Your task to perform on an android device: Open Youtube and go to the subscriptions tab Image 0: 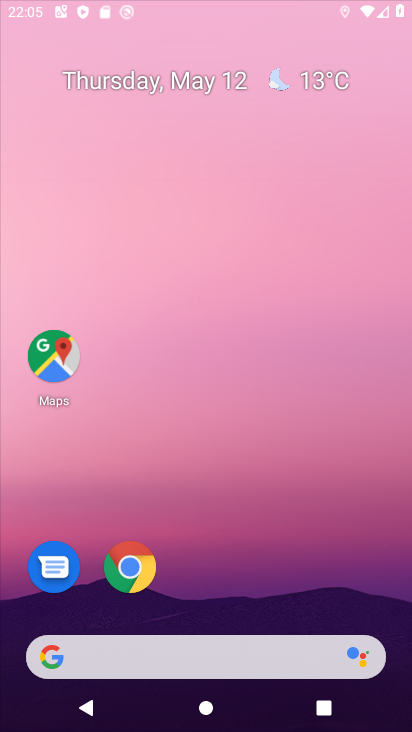
Step 0: drag from (193, 609) to (187, 96)
Your task to perform on an android device: Open Youtube and go to the subscriptions tab Image 1: 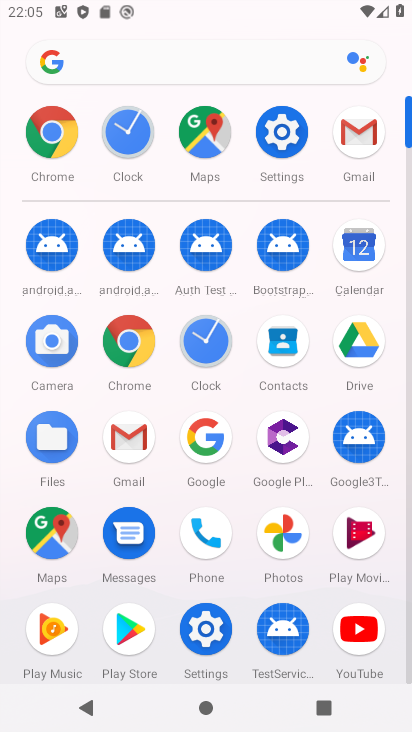
Step 1: click (364, 626)
Your task to perform on an android device: Open Youtube and go to the subscriptions tab Image 2: 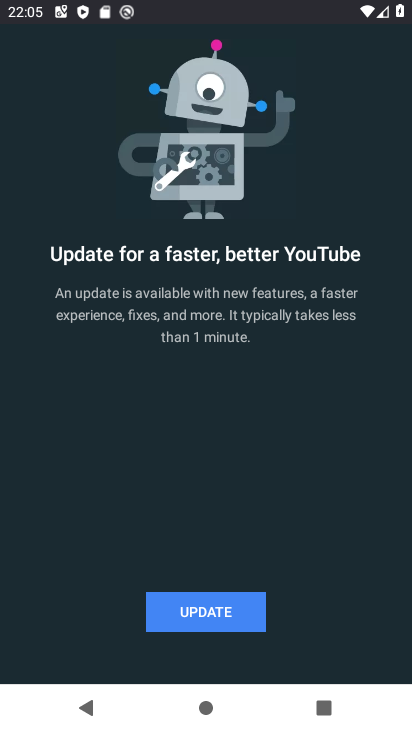
Step 2: click (202, 602)
Your task to perform on an android device: Open Youtube and go to the subscriptions tab Image 3: 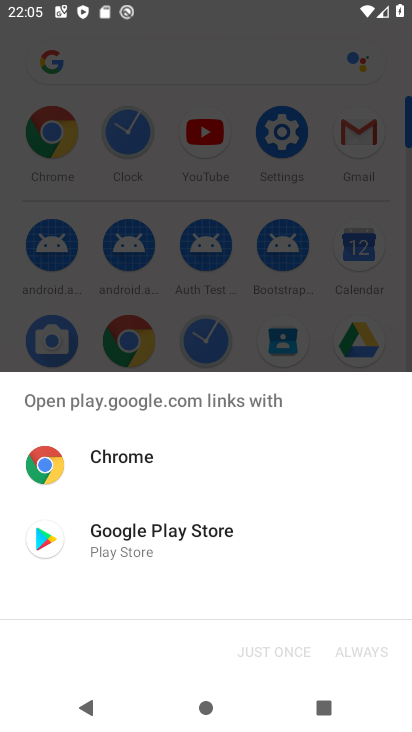
Step 3: click (103, 537)
Your task to perform on an android device: Open Youtube and go to the subscriptions tab Image 4: 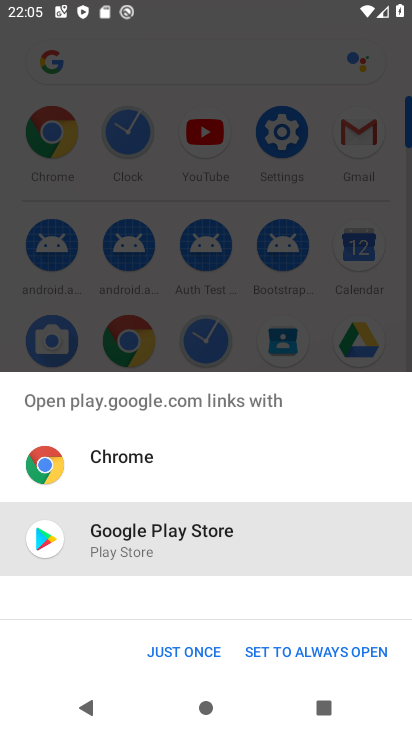
Step 4: click (179, 653)
Your task to perform on an android device: Open Youtube and go to the subscriptions tab Image 5: 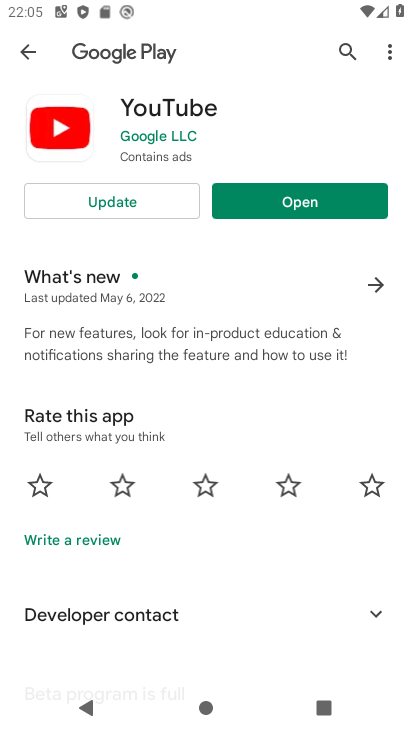
Step 5: click (125, 210)
Your task to perform on an android device: Open Youtube and go to the subscriptions tab Image 6: 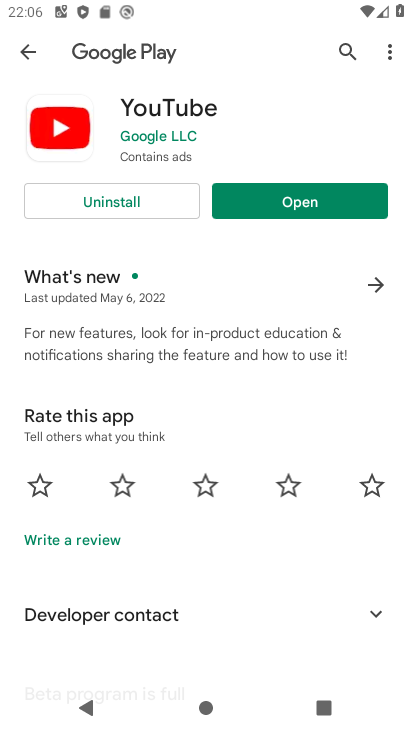
Step 6: click (290, 210)
Your task to perform on an android device: Open Youtube and go to the subscriptions tab Image 7: 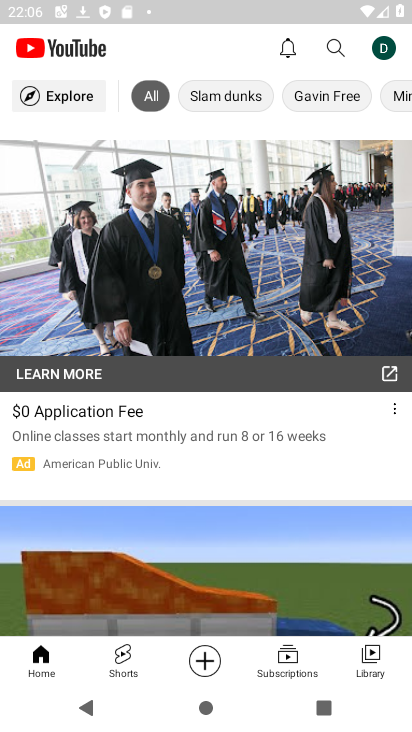
Step 7: click (284, 656)
Your task to perform on an android device: Open Youtube and go to the subscriptions tab Image 8: 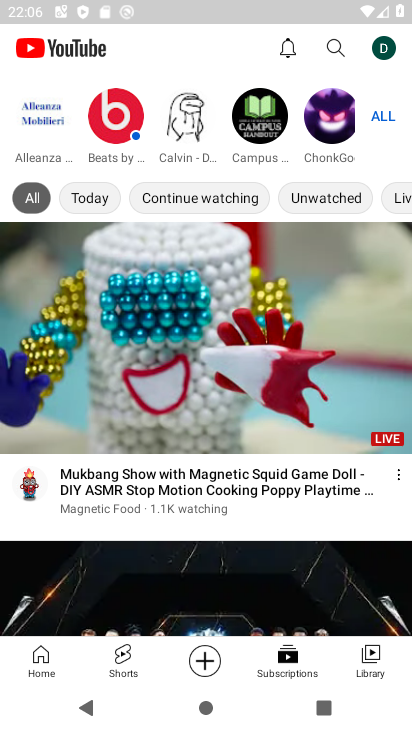
Step 8: task complete